Your task to perform on an android device: Open the web browser Image 0: 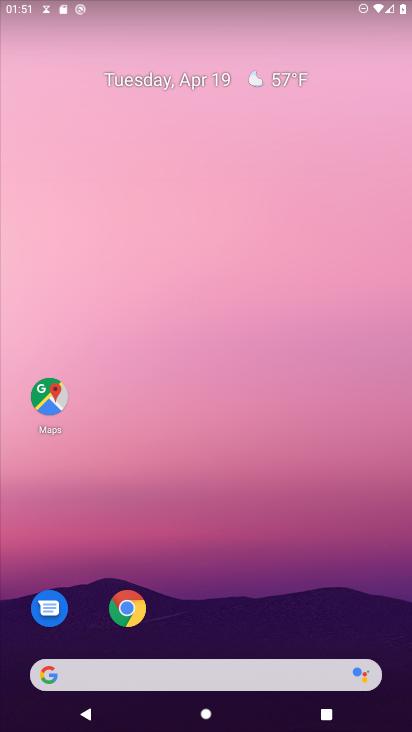
Step 0: click (122, 602)
Your task to perform on an android device: Open the web browser Image 1: 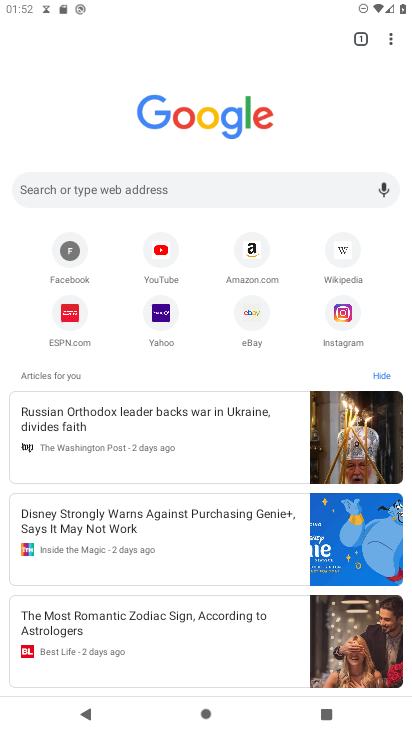
Step 1: task complete